Your task to perform on an android device: Do I have any events this weekend? Image 0: 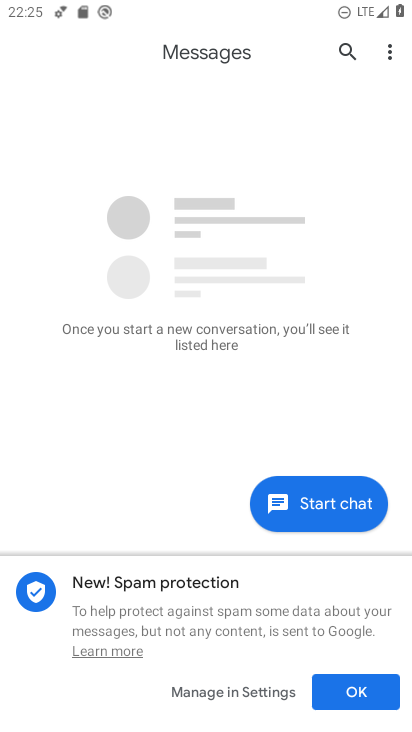
Step 0: press home button
Your task to perform on an android device: Do I have any events this weekend? Image 1: 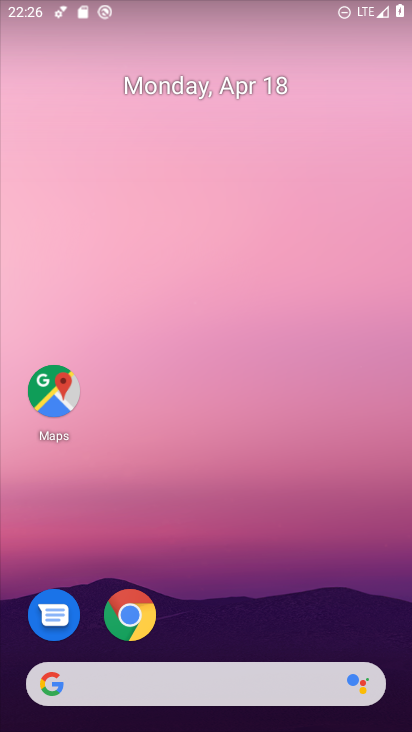
Step 1: drag from (338, 606) to (321, 18)
Your task to perform on an android device: Do I have any events this weekend? Image 2: 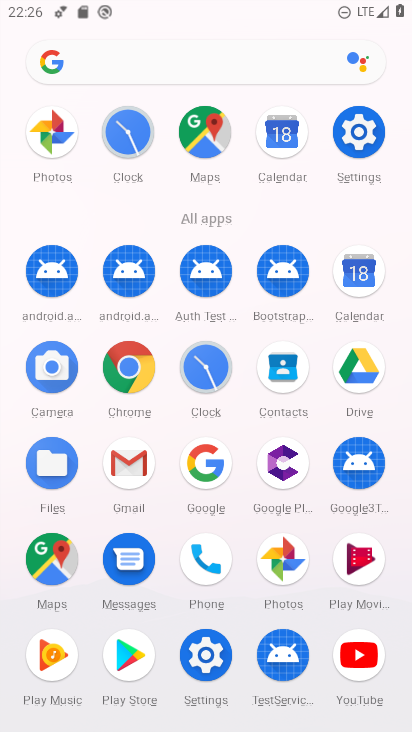
Step 2: click (354, 284)
Your task to perform on an android device: Do I have any events this weekend? Image 3: 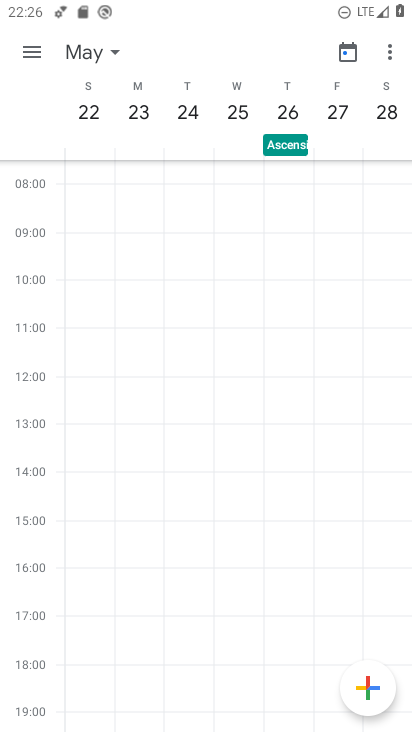
Step 3: click (110, 53)
Your task to perform on an android device: Do I have any events this weekend? Image 4: 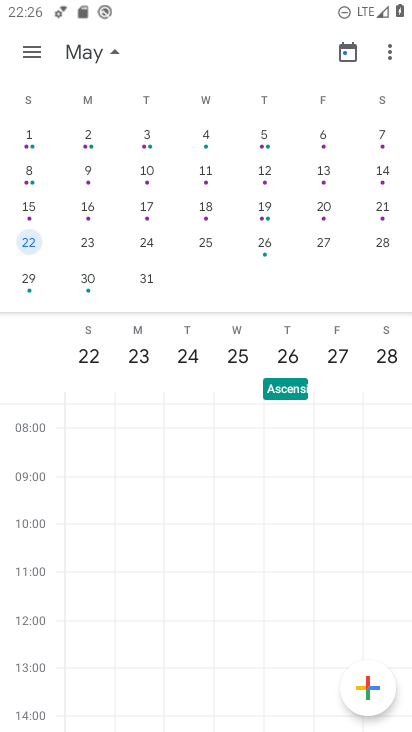
Step 4: drag from (86, 152) to (402, 185)
Your task to perform on an android device: Do I have any events this weekend? Image 5: 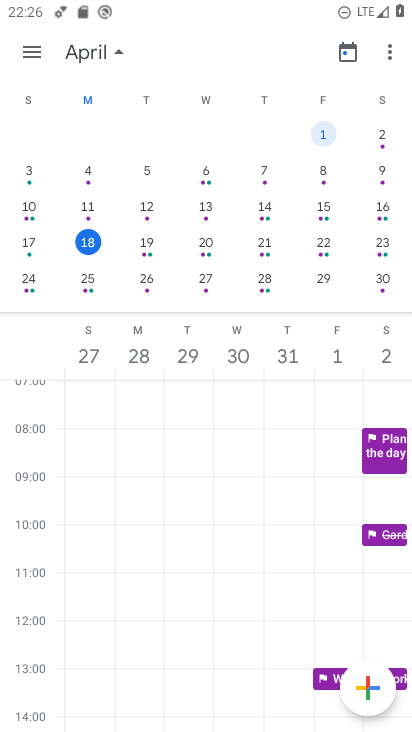
Step 5: click (30, 53)
Your task to perform on an android device: Do I have any events this weekend? Image 6: 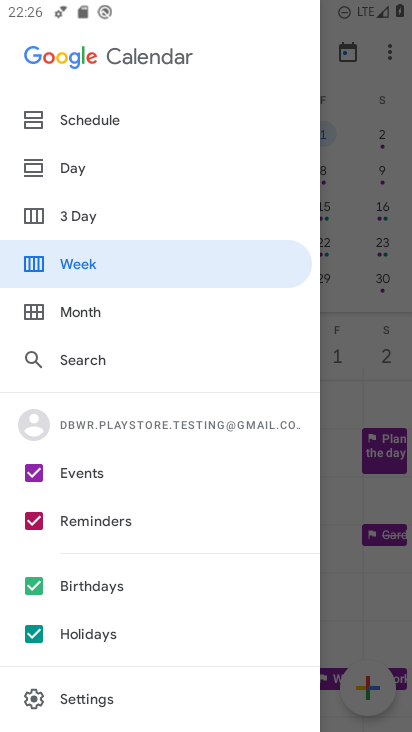
Step 6: click (31, 524)
Your task to perform on an android device: Do I have any events this weekend? Image 7: 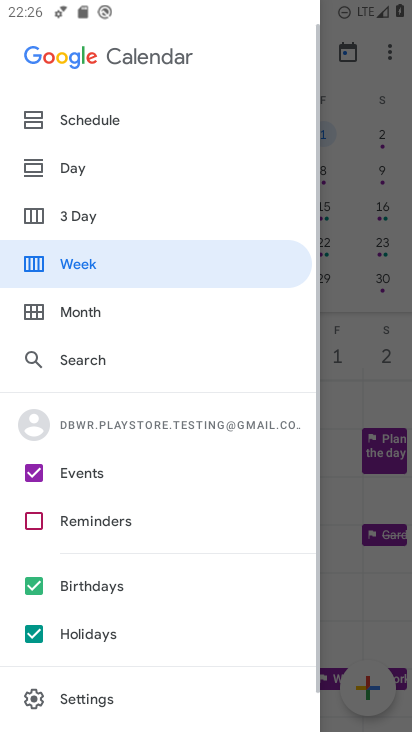
Step 7: click (30, 592)
Your task to perform on an android device: Do I have any events this weekend? Image 8: 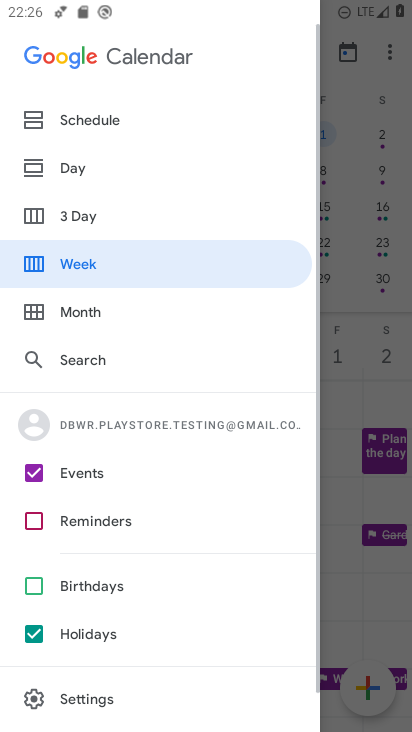
Step 8: click (34, 634)
Your task to perform on an android device: Do I have any events this weekend? Image 9: 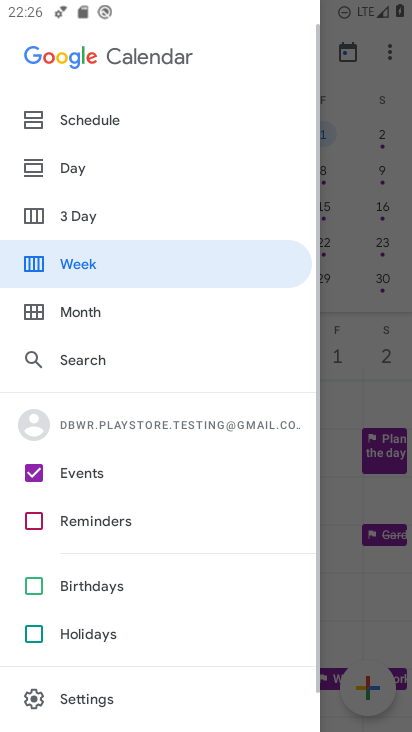
Step 9: drag from (125, 600) to (135, 439)
Your task to perform on an android device: Do I have any events this weekend? Image 10: 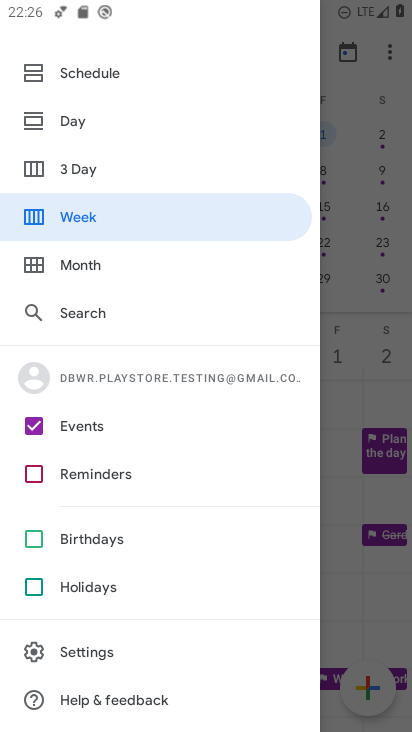
Step 10: click (90, 68)
Your task to perform on an android device: Do I have any events this weekend? Image 11: 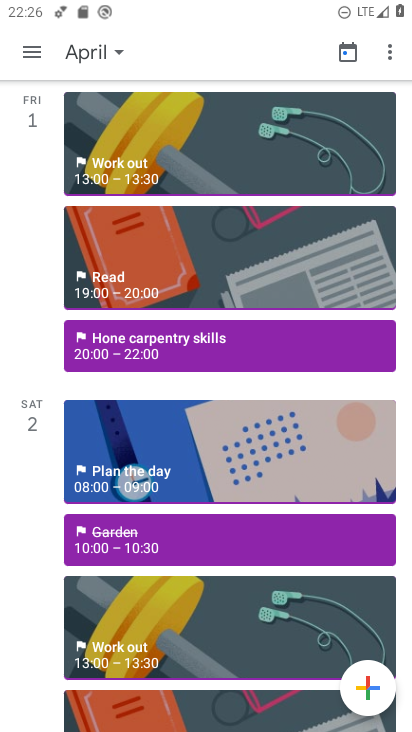
Step 11: drag from (212, 580) to (230, 157)
Your task to perform on an android device: Do I have any events this weekend? Image 12: 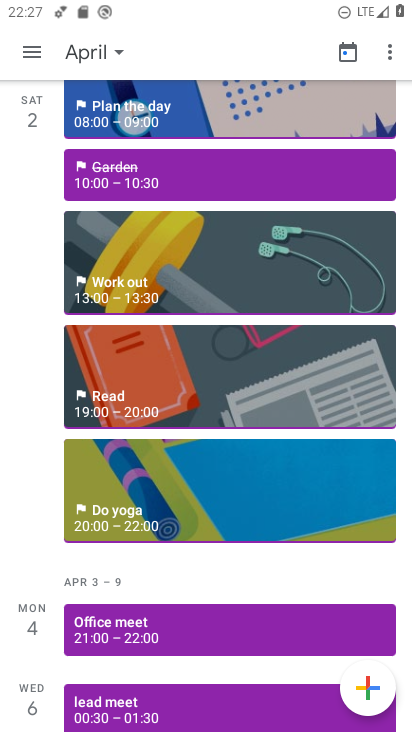
Step 12: click (117, 51)
Your task to perform on an android device: Do I have any events this weekend? Image 13: 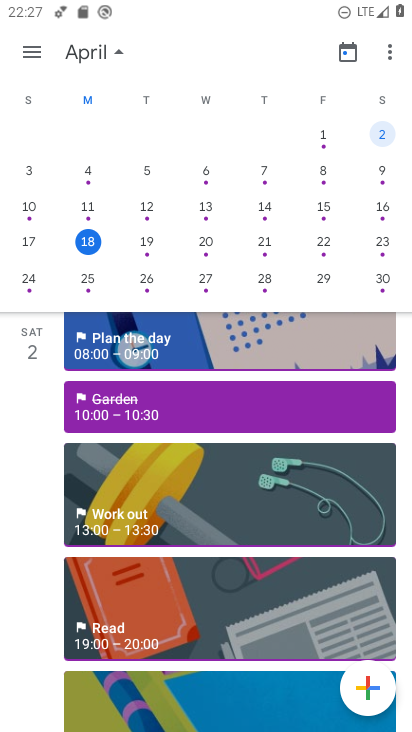
Step 13: click (379, 244)
Your task to perform on an android device: Do I have any events this weekend? Image 14: 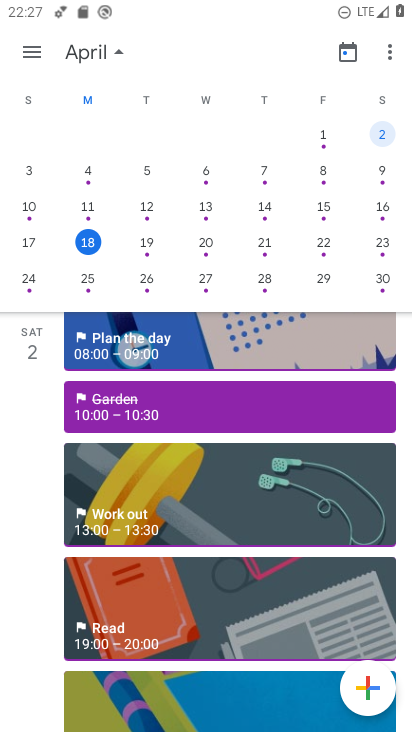
Step 14: click (31, 288)
Your task to perform on an android device: Do I have any events this weekend? Image 15: 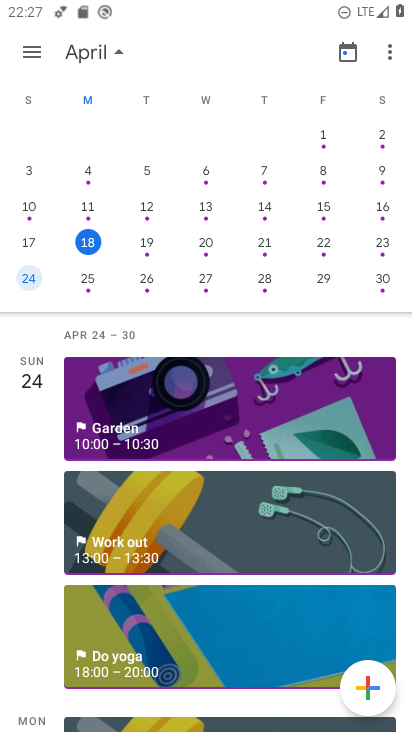
Step 15: click (224, 378)
Your task to perform on an android device: Do I have any events this weekend? Image 16: 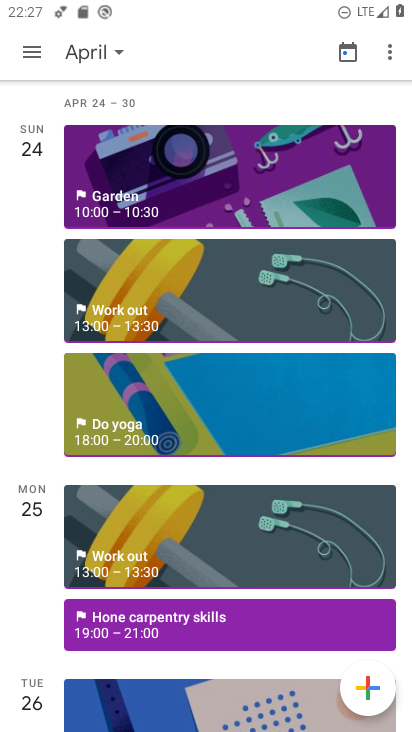
Step 16: click (188, 196)
Your task to perform on an android device: Do I have any events this weekend? Image 17: 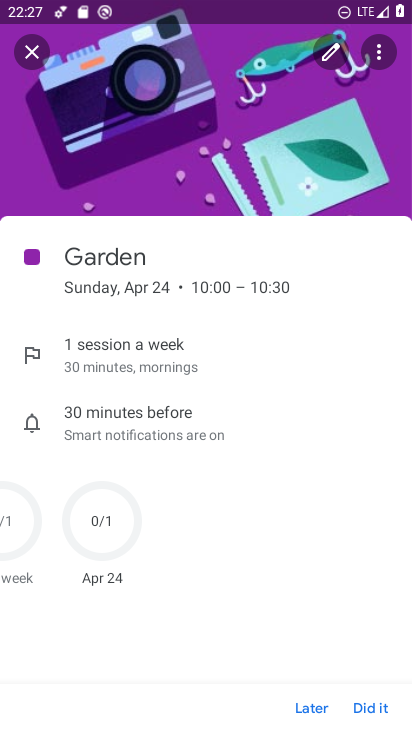
Step 17: task complete